Your task to perform on an android device: Go to internet settings Image 0: 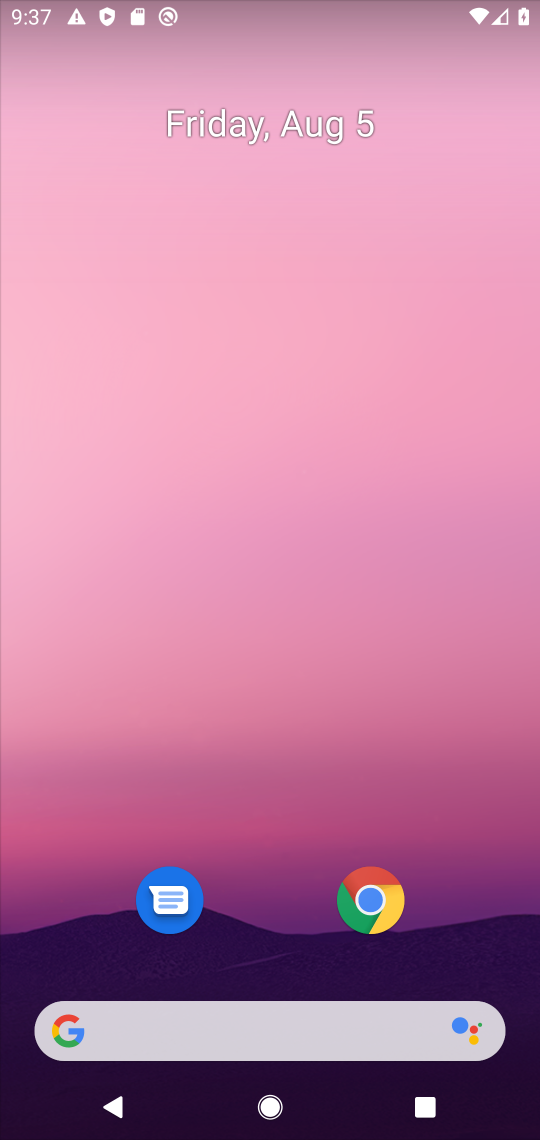
Step 0: drag from (518, 986) to (301, 62)
Your task to perform on an android device: Go to internet settings Image 1: 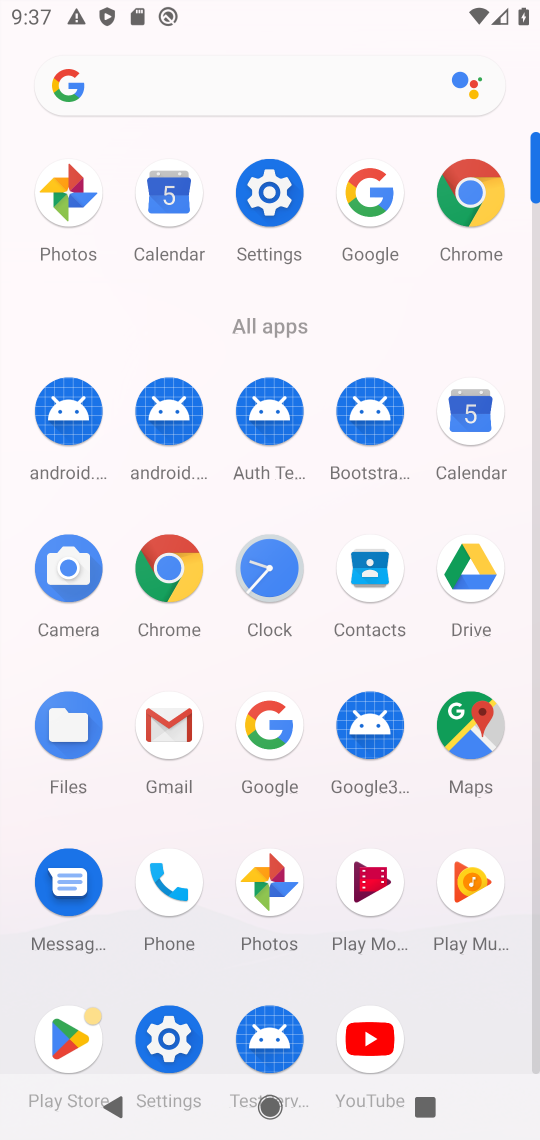
Step 1: click (283, 201)
Your task to perform on an android device: Go to internet settings Image 2: 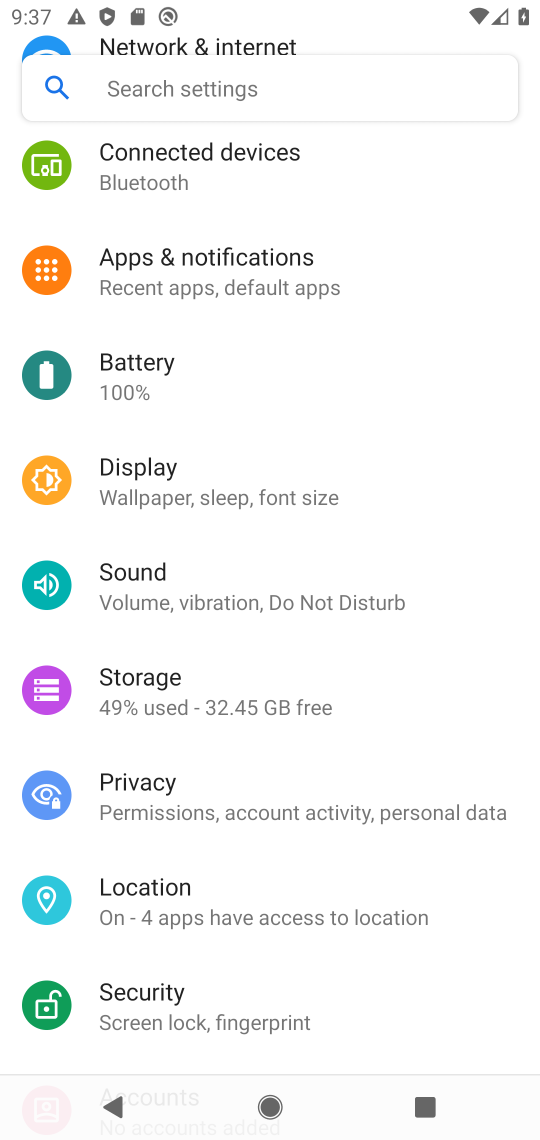
Step 2: drag from (251, 334) to (278, 856)
Your task to perform on an android device: Go to internet settings Image 3: 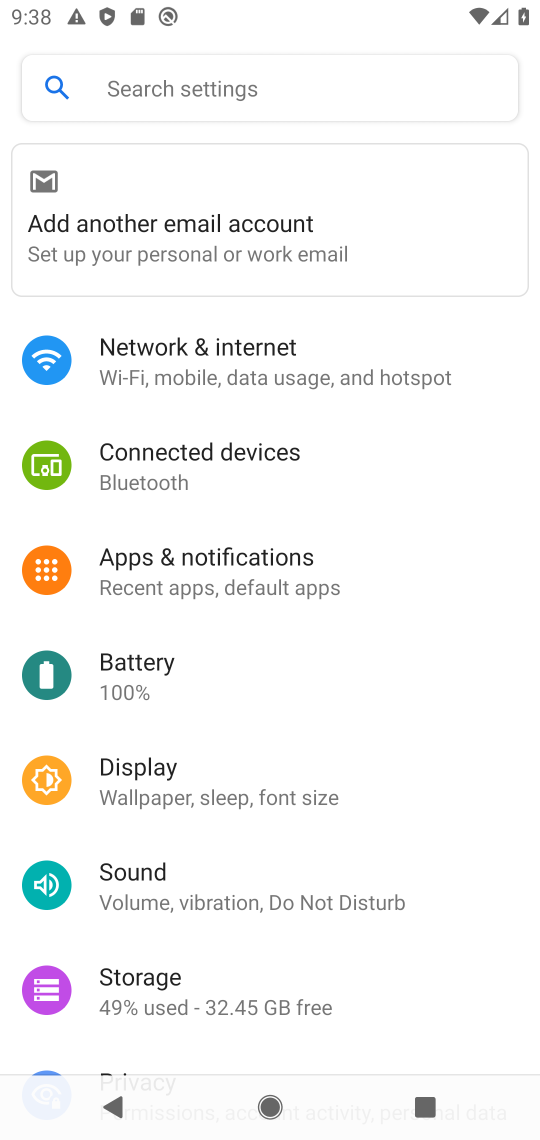
Step 3: drag from (332, 754) to (336, 882)
Your task to perform on an android device: Go to internet settings Image 4: 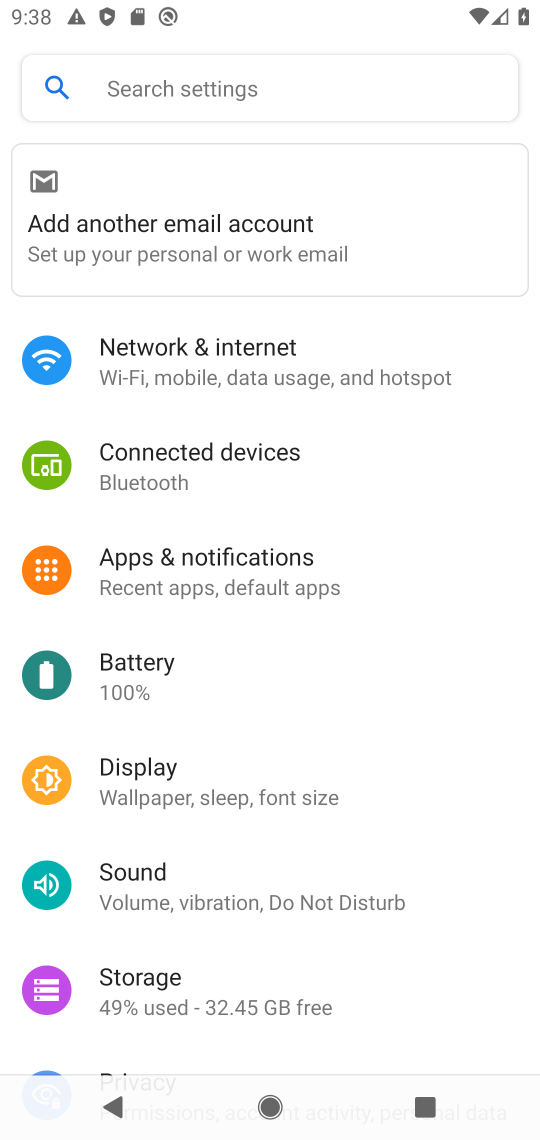
Step 4: drag from (261, 519) to (296, 885)
Your task to perform on an android device: Go to internet settings Image 5: 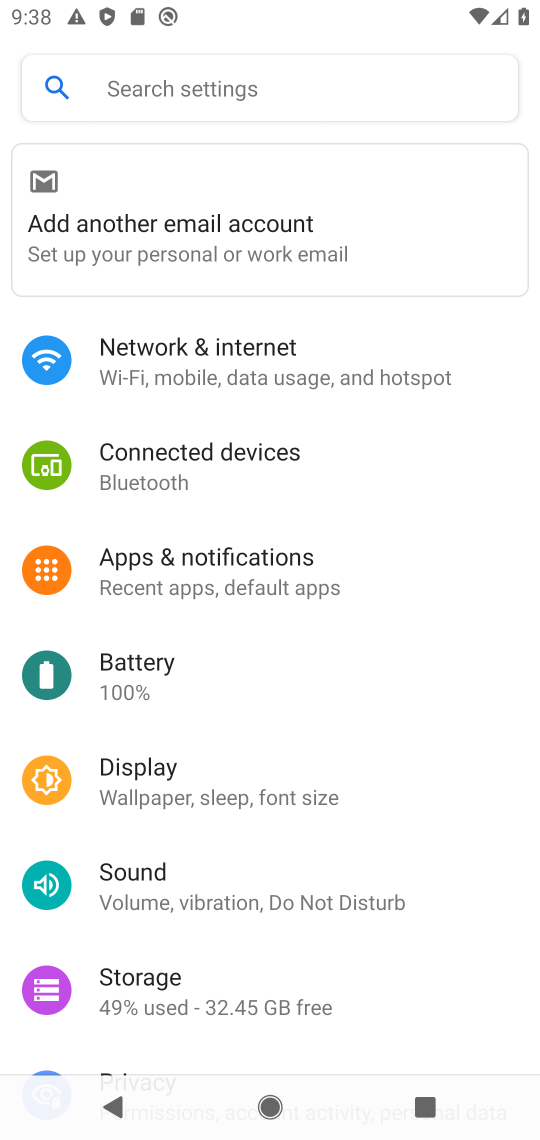
Step 5: click (275, 366)
Your task to perform on an android device: Go to internet settings Image 6: 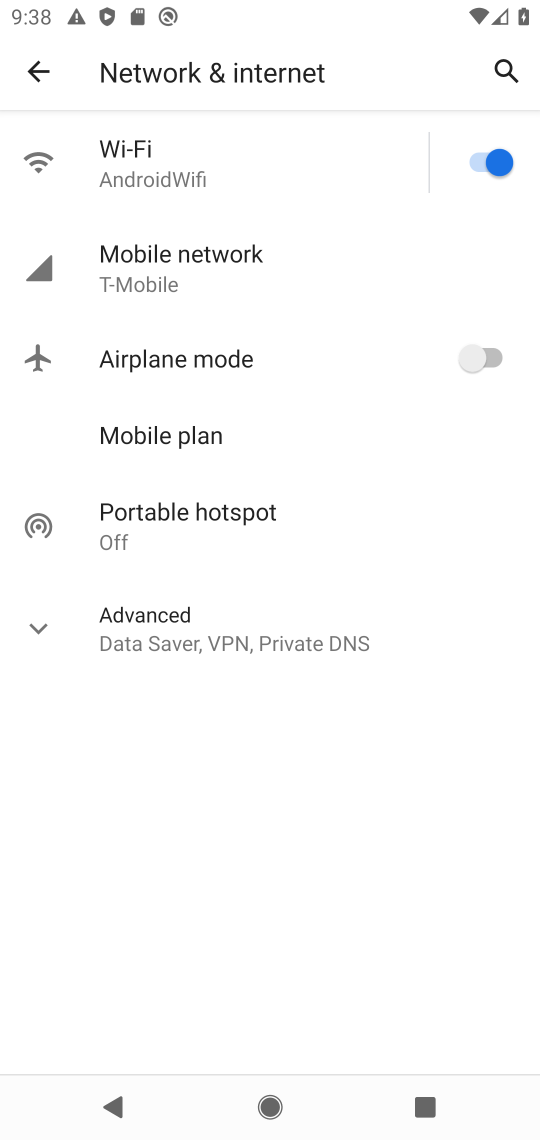
Step 6: task complete